Your task to perform on an android device: turn off improve location accuracy Image 0: 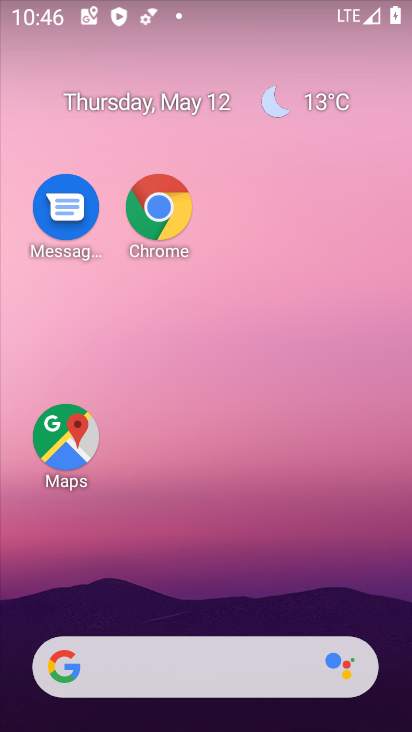
Step 0: drag from (156, 611) to (72, 2)
Your task to perform on an android device: turn off improve location accuracy Image 1: 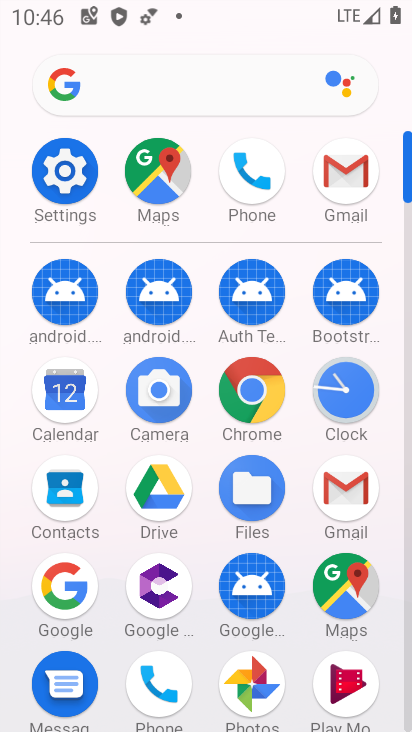
Step 1: click (78, 156)
Your task to perform on an android device: turn off improve location accuracy Image 2: 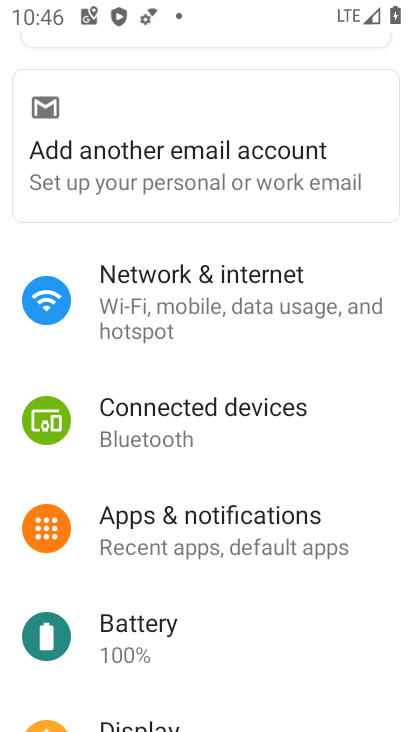
Step 2: drag from (146, 596) to (161, 98)
Your task to perform on an android device: turn off improve location accuracy Image 3: 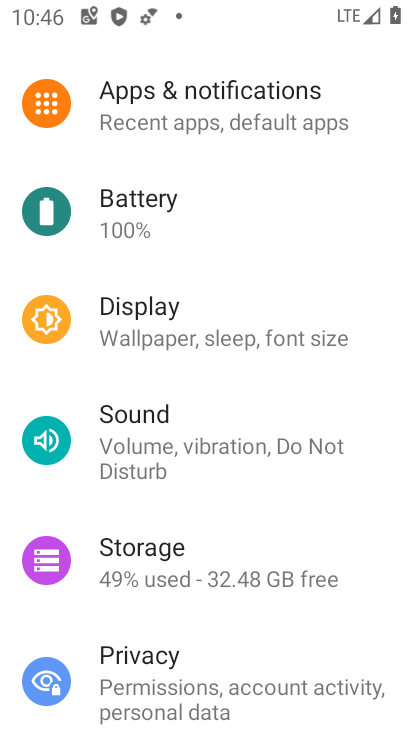
Step 3: drag from (149, 557) to (115, 88)
Your task to perform on an android device: turn off improve location accuracy Image 4: 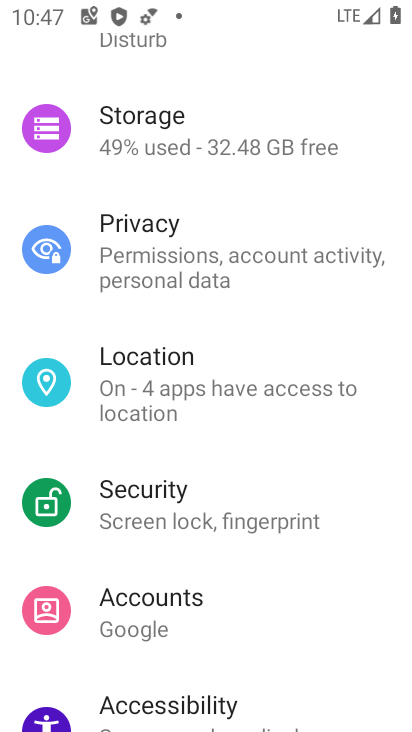
Step 4: click (189, 409)
Your task to perform on an android device: turn off improve location accuracy Image 5: 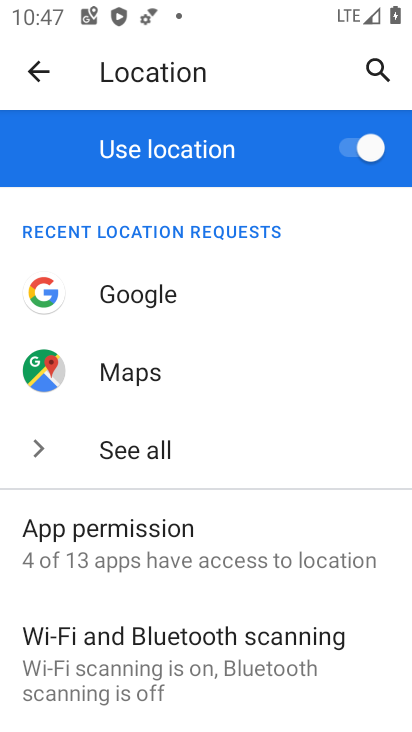
Step 5: drag from (211, 589) to (186, 179)
Your task to perform on an android device: turn off improve location accuracy Image 6: 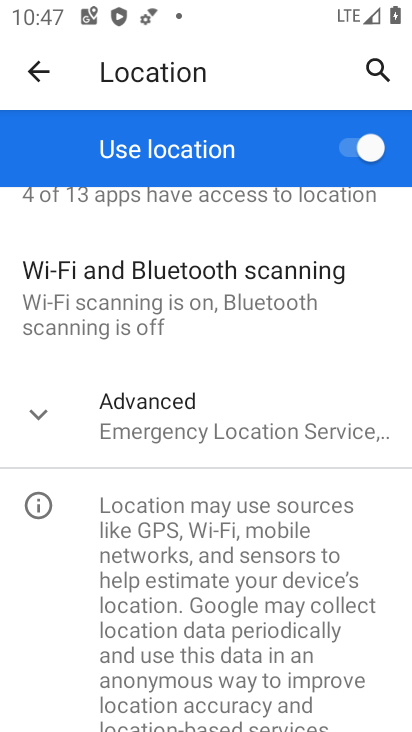
Step 6: click (209, 438)
Your task to perform on an android device: turn off improve location accuracy Image 7: 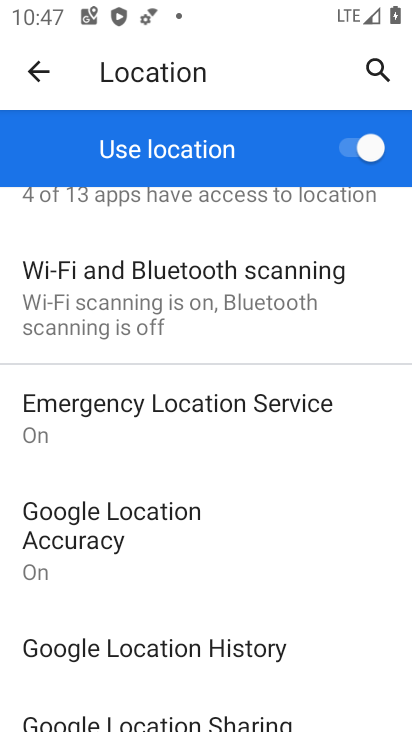
Step 7: drag from (124, 635) to (121, 370)
Your task to perform on an android device: turn off improve location accuracy Image 8: 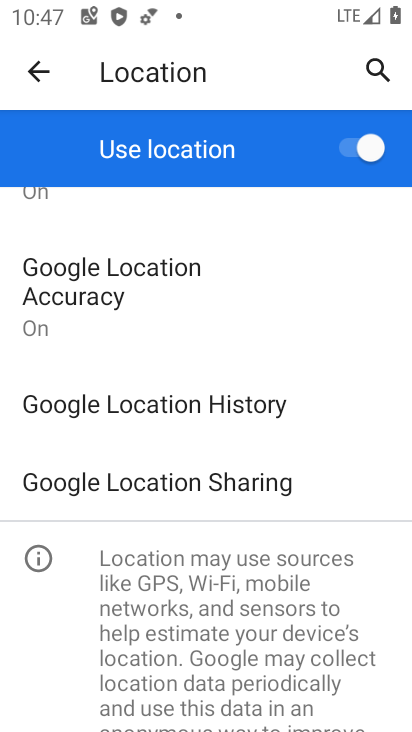
Step 8: click (103, 318)
Your task to perform on an android device: turn off improve location accuracy Image 9: 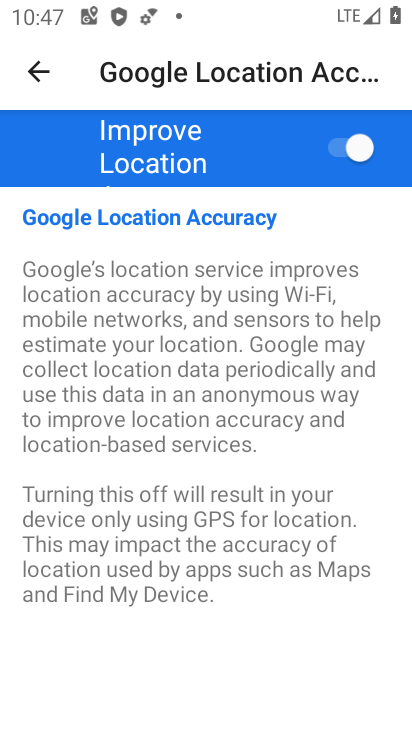
Step 9: click (349, 153)
Your task to perform on an android device: turn off improve location accuracy Image 10: 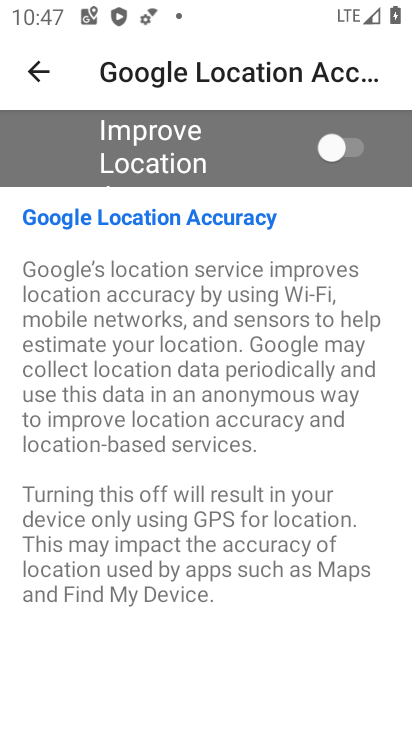
Step 10: task complete